Your task to perform on an android device: Open notification settings Image 0: 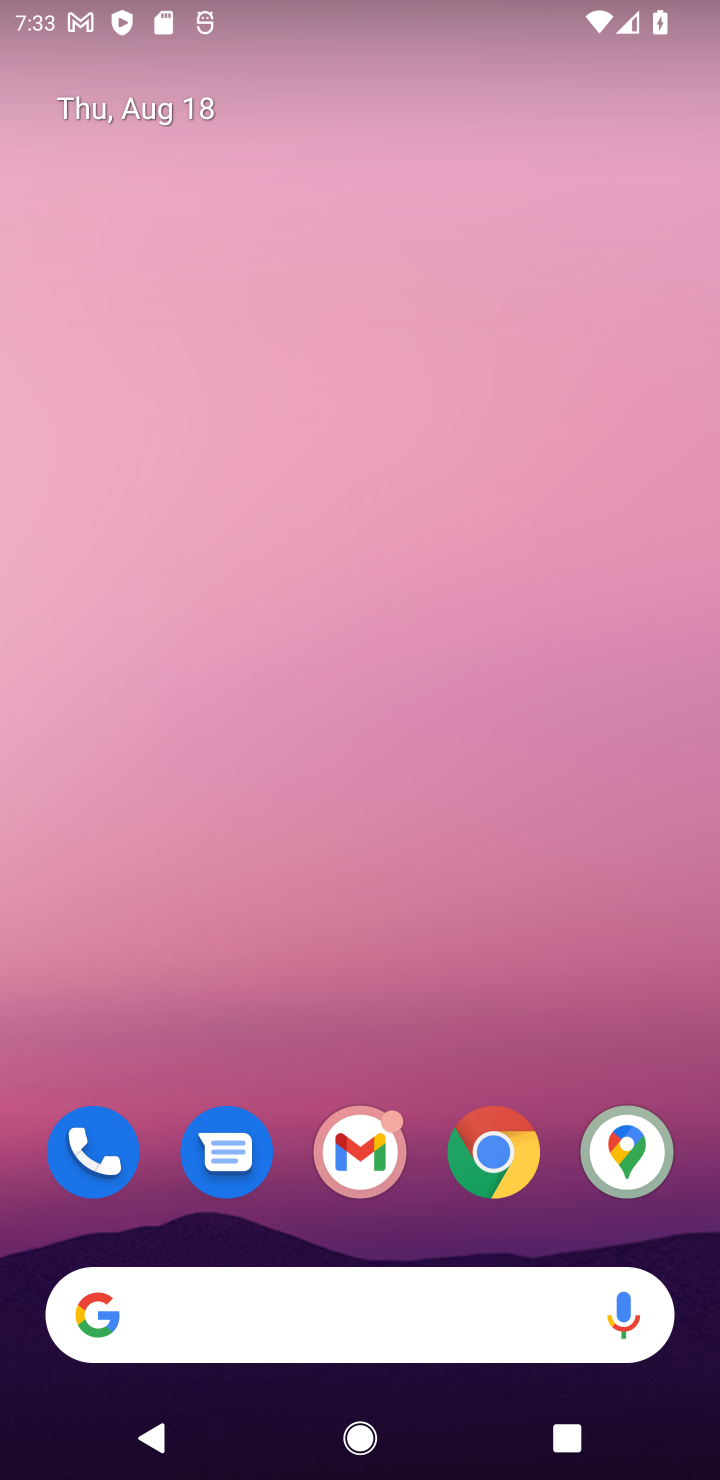
Step 0: press home button
Your task to perform on an android device: Open notification settings Image 1: 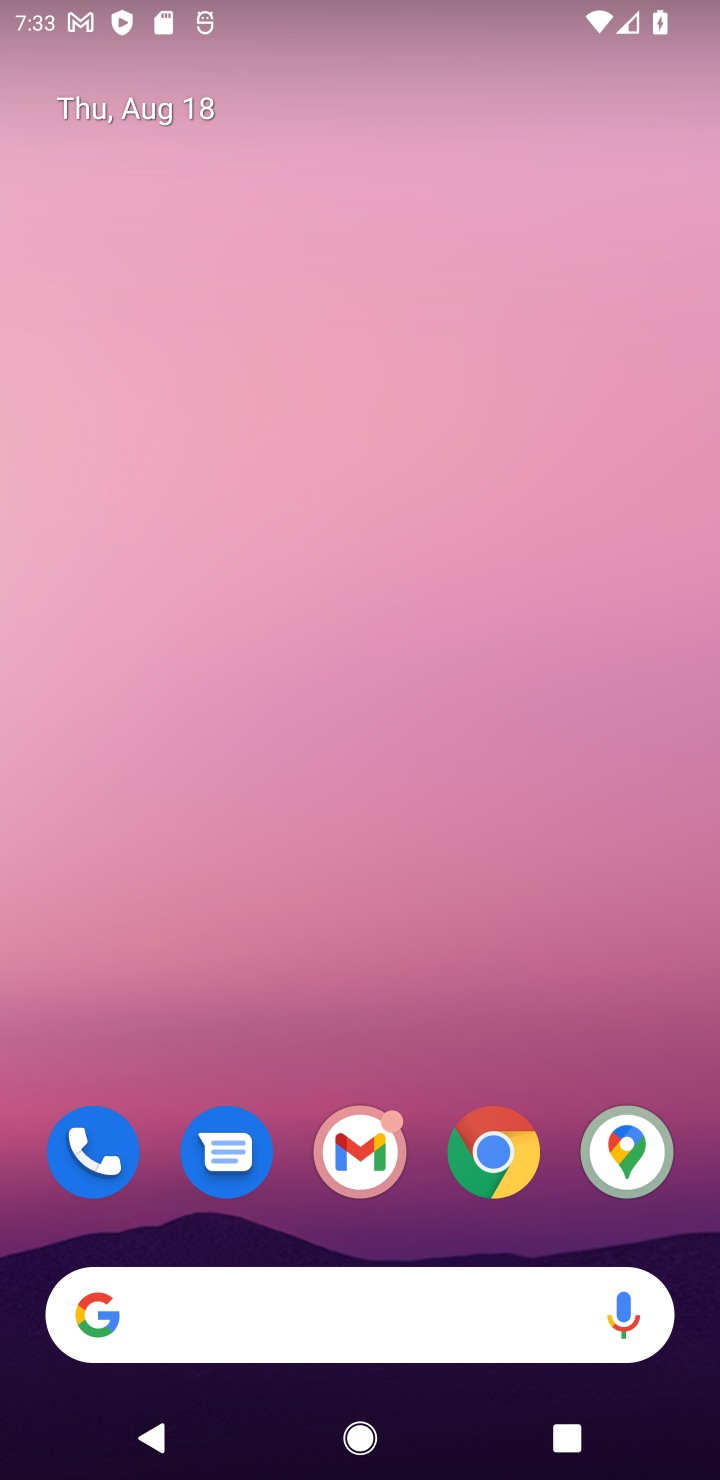
Step 1: drag from (426, 600) to (449, 56)
Your task to perform on an android device: Open notification settings Image 2: 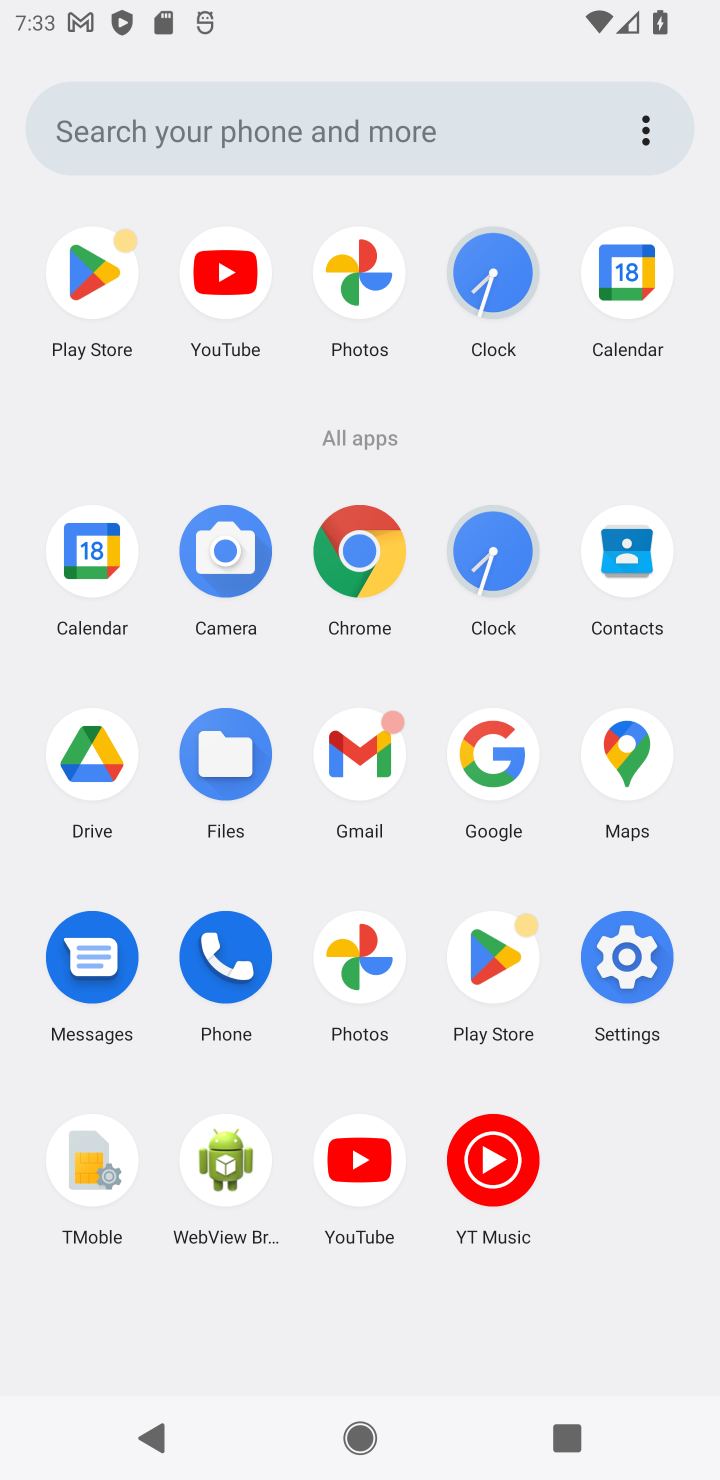
Step 2: click (625, 963)
Your task to perform on an android device: Open notification settings Image 3: 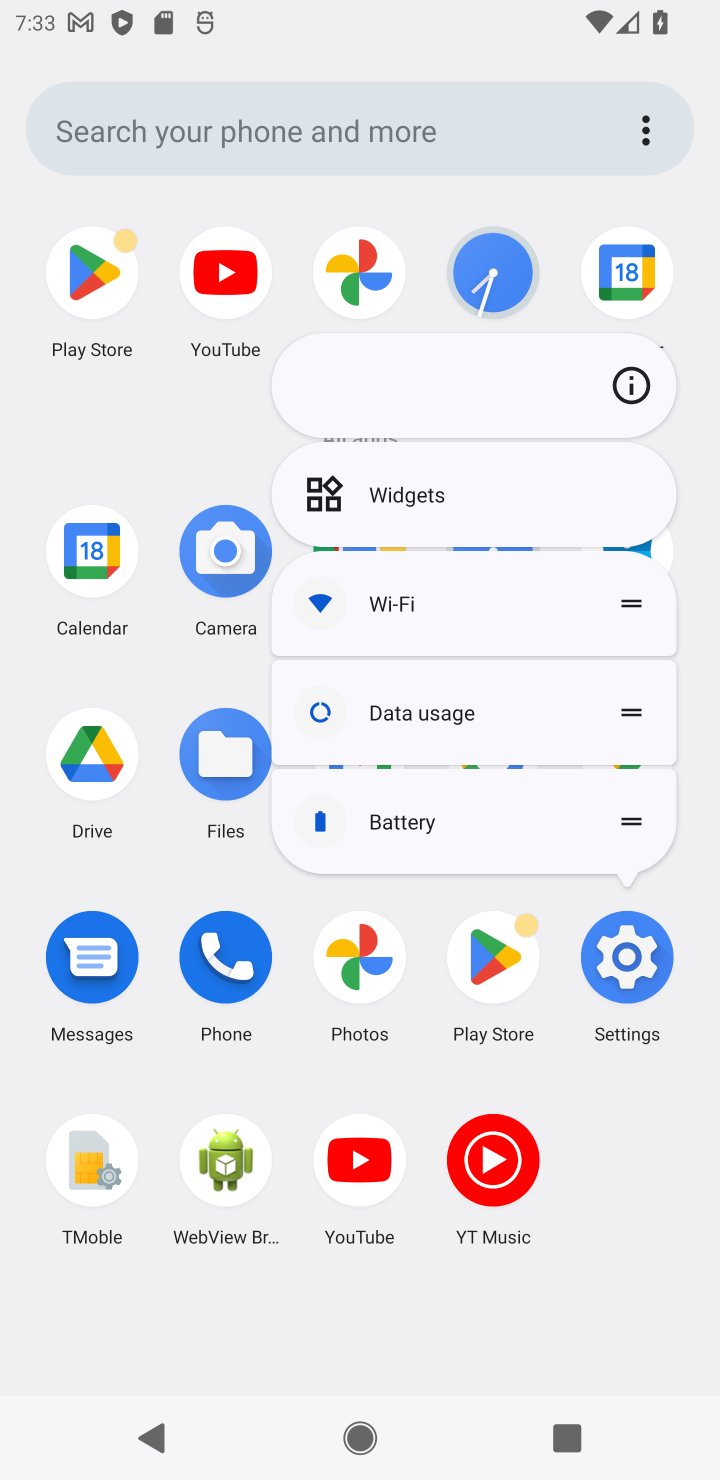
Step 3: click (615, 968)
Your task to perform on an android device: Open notification settings Image 4: 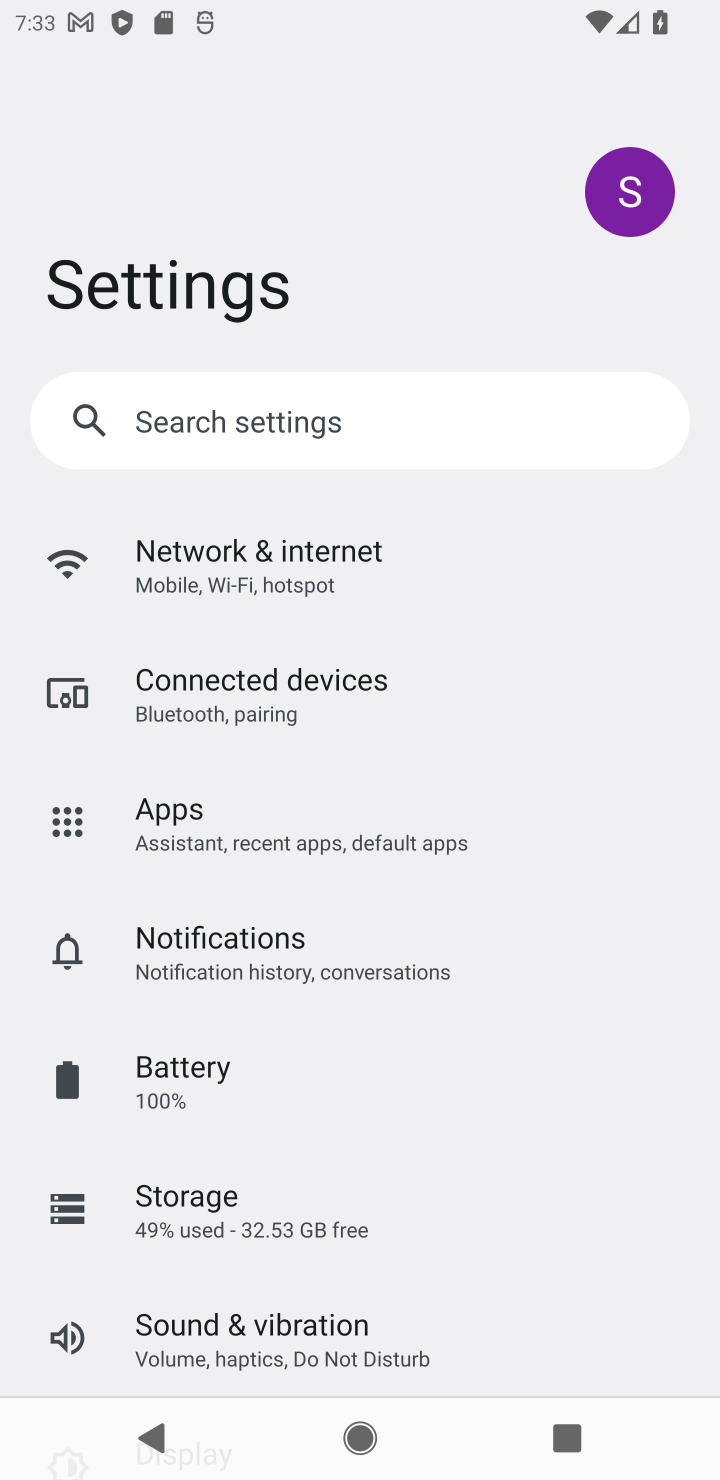
Step 4: click (221, 933)
Your task to perform on an android device: Open notification settings Image 5: 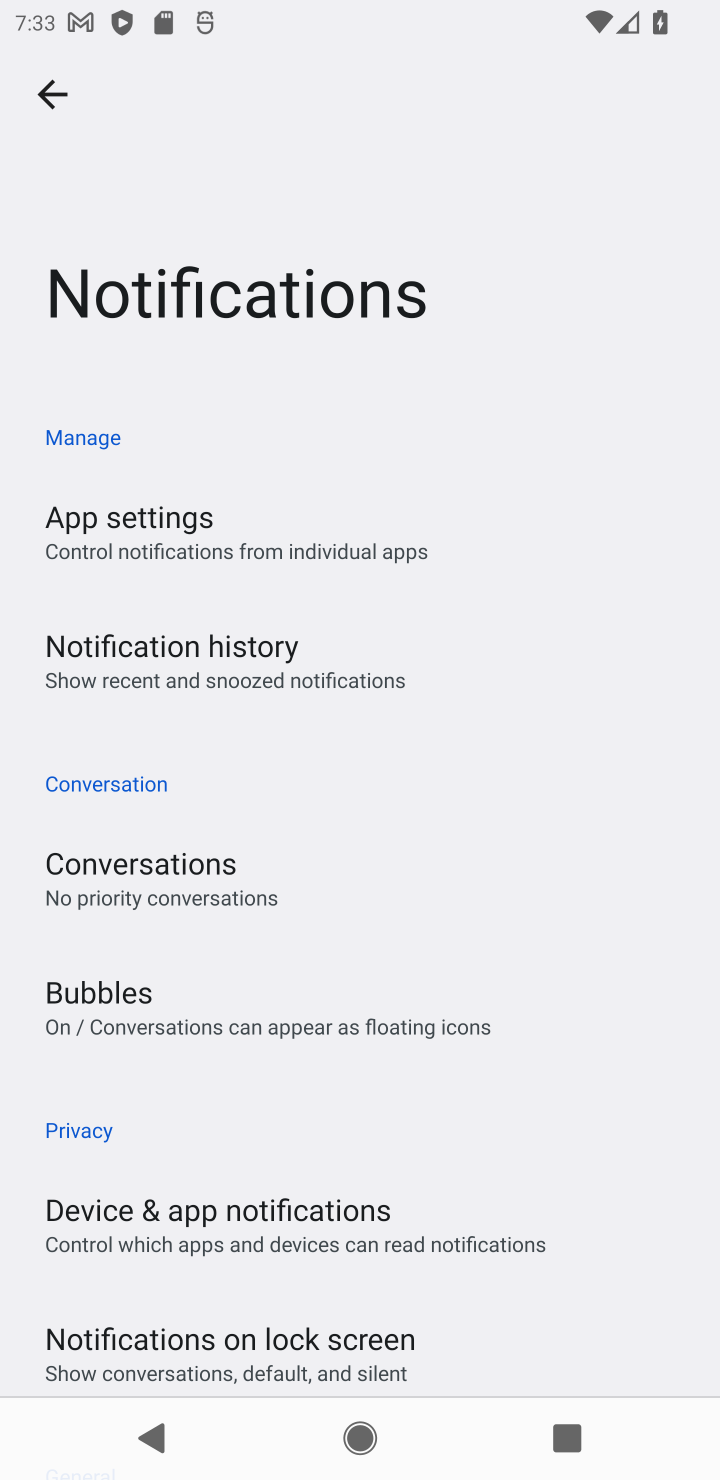
Step 5: task complete